Your task to perform on an android device: Open the stopwatch Image 0: 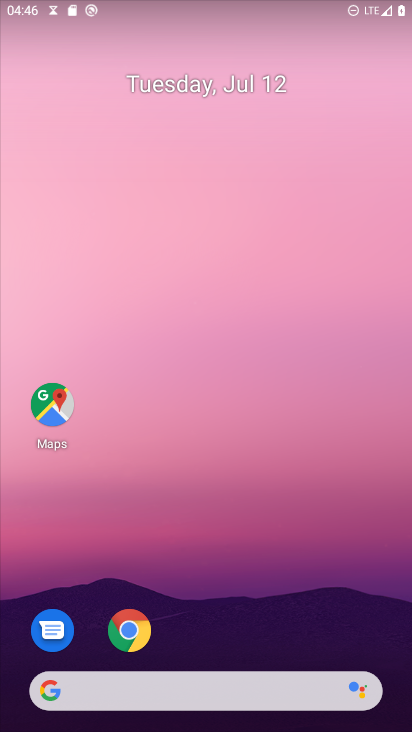
Step 0: drag from (175, 664) to (211, 24)
Your task to perform on an android device: Open the stopwatch Image 1: 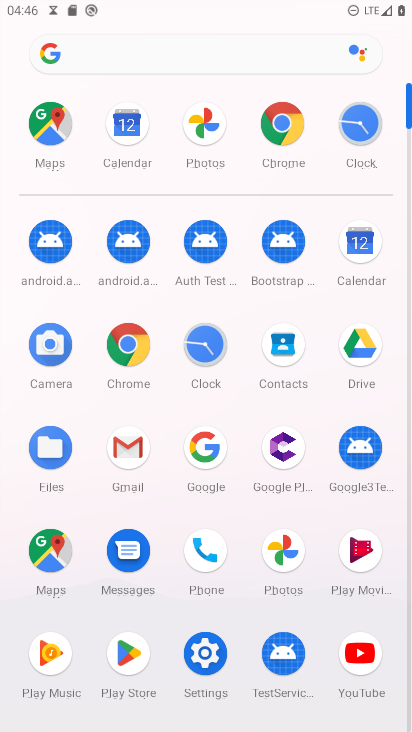
Step 1: click (208, 346)
Your task to perform on an android device: Open the stopwatch Image 2: 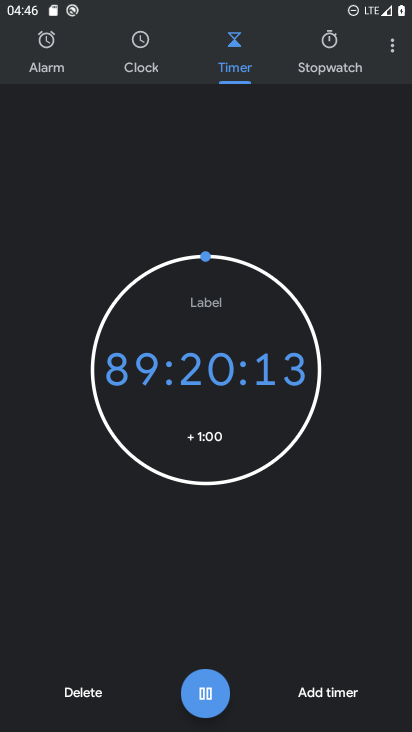
Step 2: click (326, 38)
Your task to perform on an android device: Open the stopwatch Image 3: 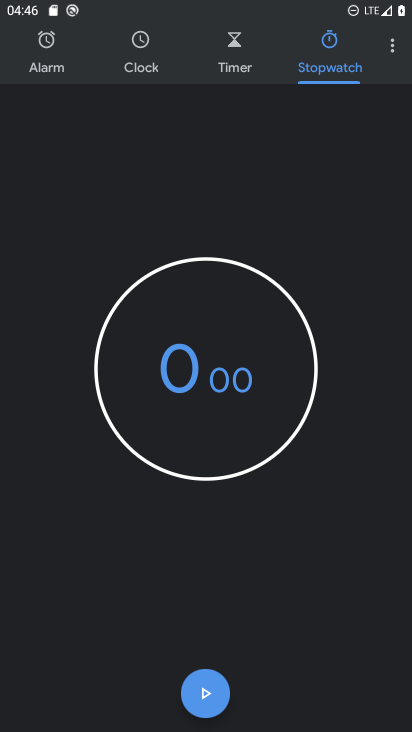
Step 3: click (216, 678)
Your task to perform on an android device: Open the stopwatch Image 4: 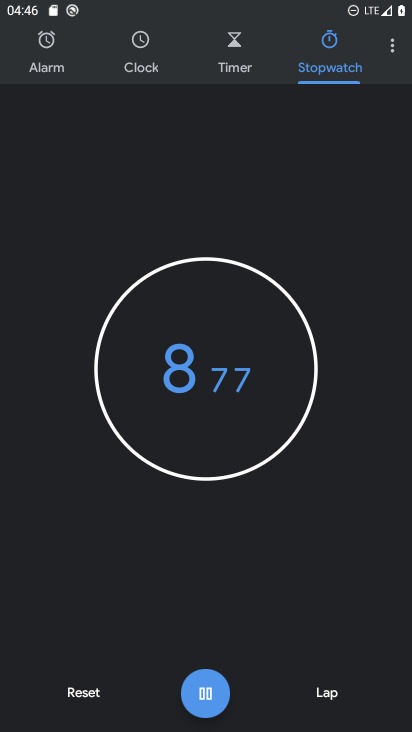
Step 4: task complete